Your task to perform on an android device: star an email in the gmail app Image 0: 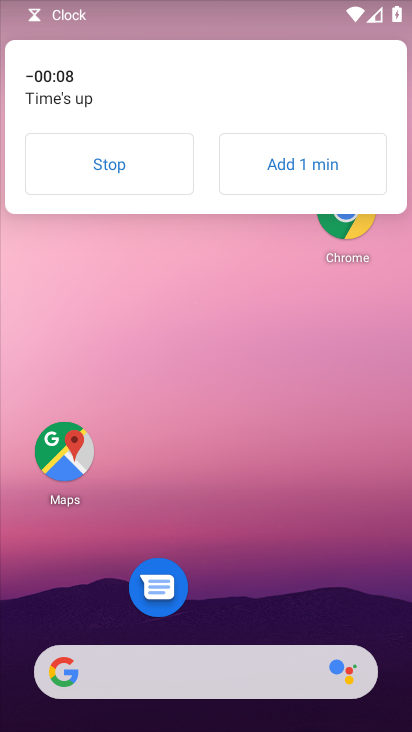
Step 0: drag from (306, 605) to (303, 208)
Your task to perform on an android device: star an email in the gmail app Image 1: 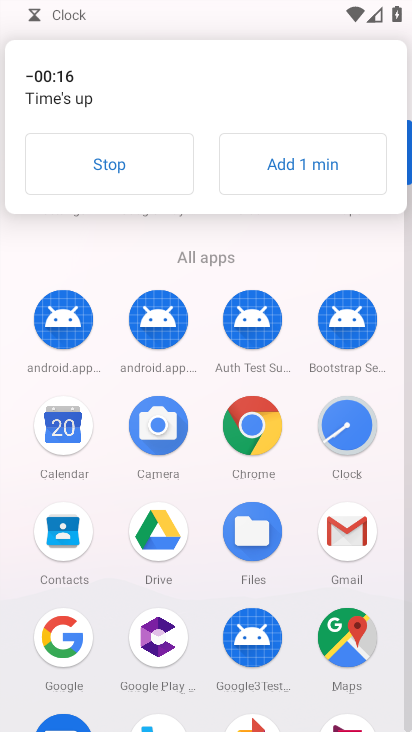
Step 1: click (340, 540)
Your task to perform on an android device: star an email in the gmail app Image 2: 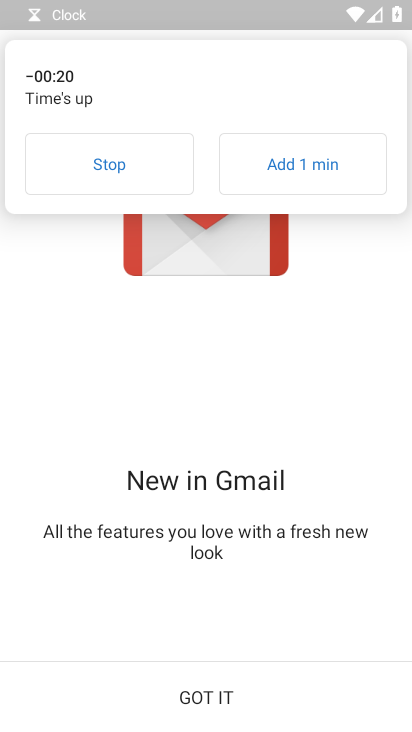
Step 2: click (220, 719)
Your task to perform on an android device: star an email in the gmail app Image 3: 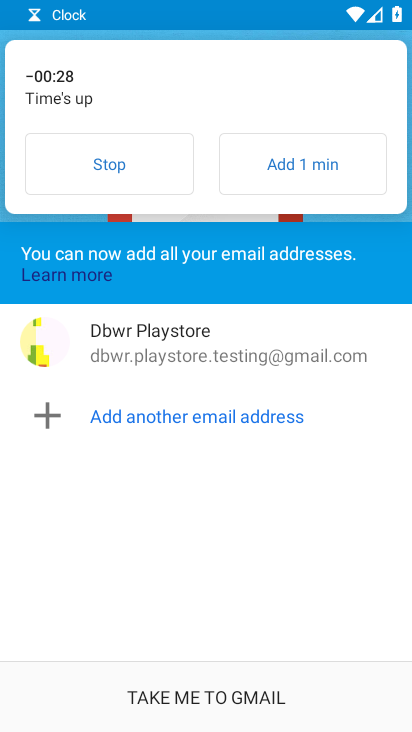
Step 3: click (175, 696)
Your task to perform on an android device: star an email in the gmail app Image 4: 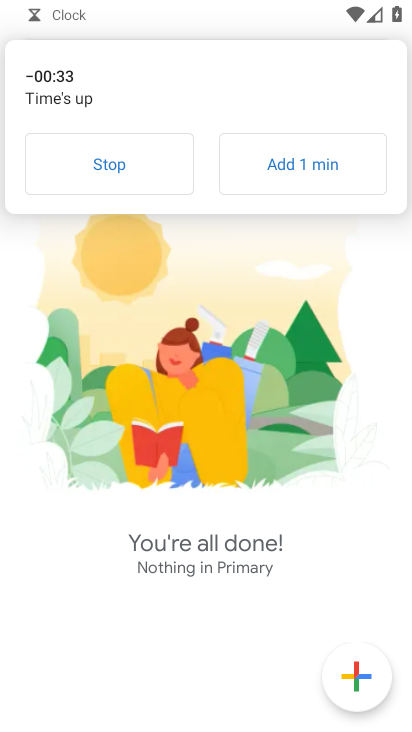
Step 4: click (133, 153)
Your task to perform on an android device: star an email in the gmail app Image 5: 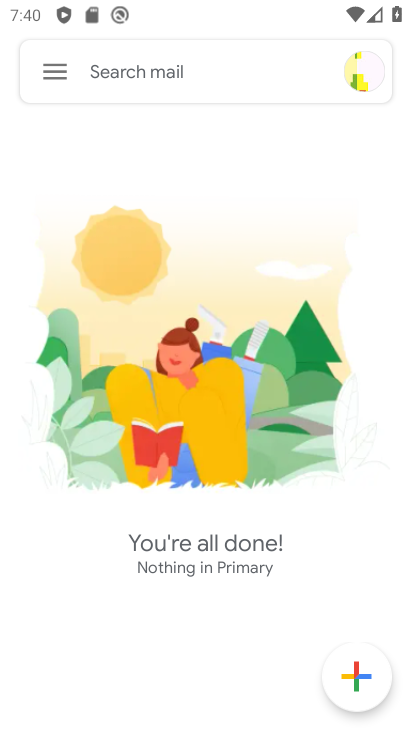
Step 5: click (49, 83)
Your task to perform on an android device: star an email in the gmail app Image 6: 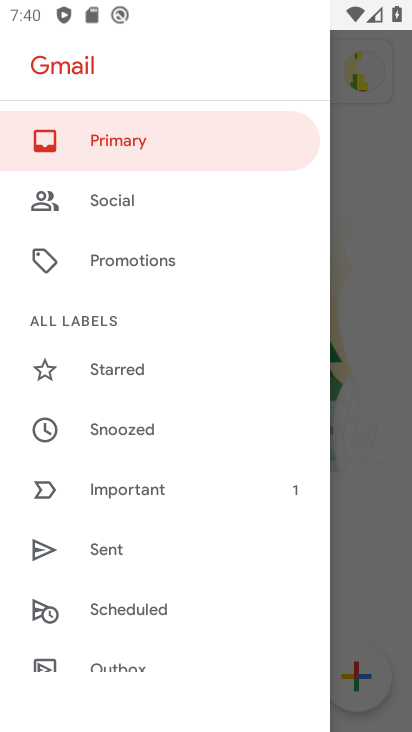
Step 6: drag from (130, 624) to (125, 168)
Your task to perform on an android device: star an email in the gmail app Image 7: 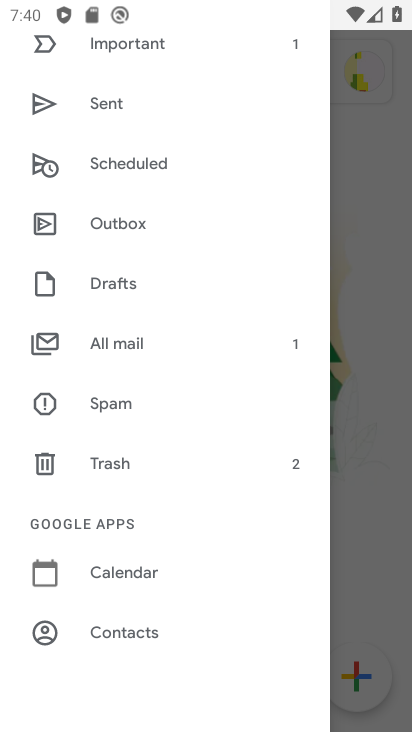
Step 7: click (132, 339)
Your task to perform on an android device: star an email in the gmail app Image 8: 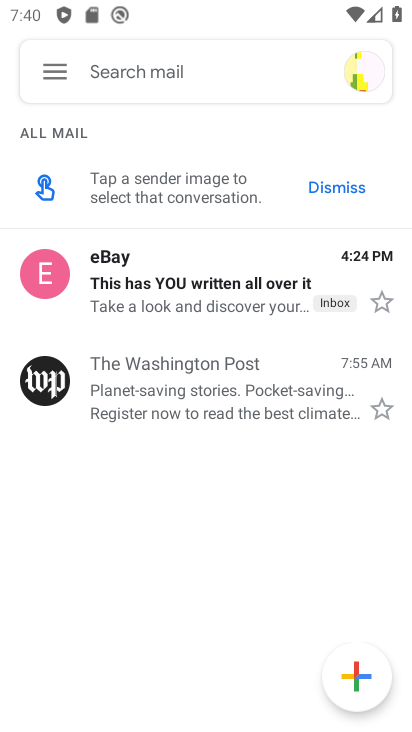
Step 8: click (385, 306)
Your task to perform on an android device: star an email in the gmail app Image 9: 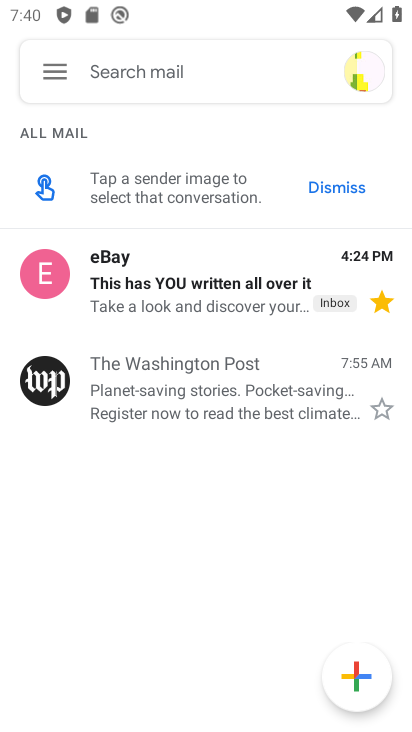
Step 9: task complete